Your task to perform on an android device: delete a single message in the gmail app Image 0: 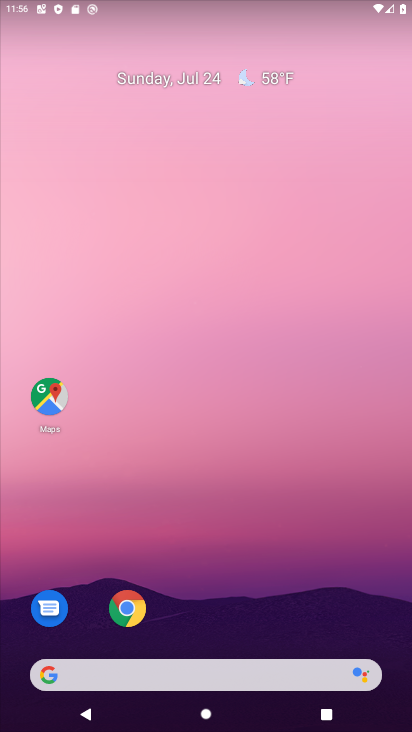
Step 0: drag from (232, 637) to (252, 136)
Your task to perform on an android device: delete a single message in the gmail app Image 1: 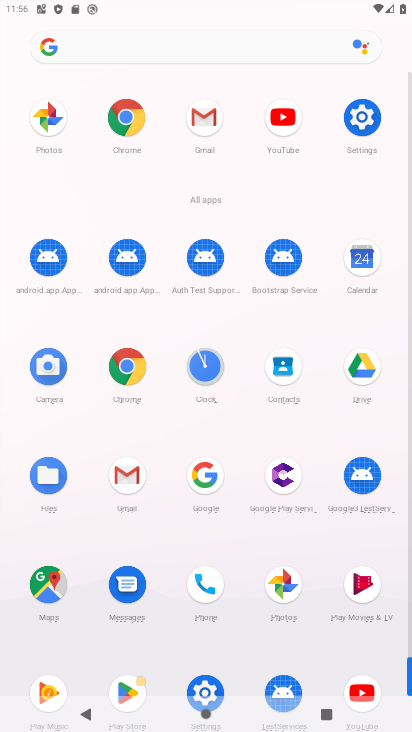
Step 1: click (132, 477)
Your task to perform on an android device: delete a single message in the gmail app Image 2: 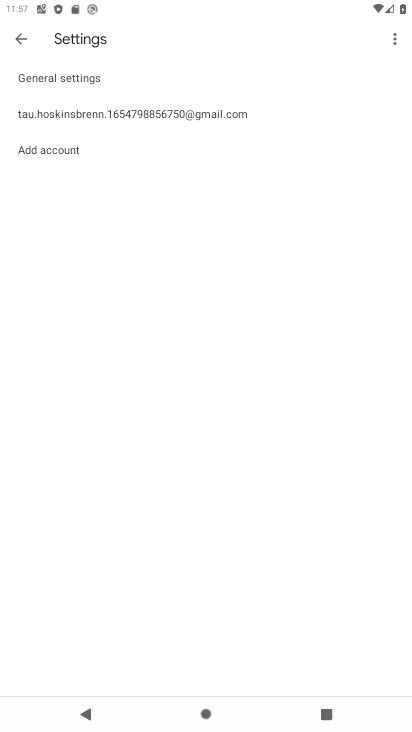
Step 2: click (20, 39)
Your task to perform on an android device: delete a single message in the gmail app Image 3: 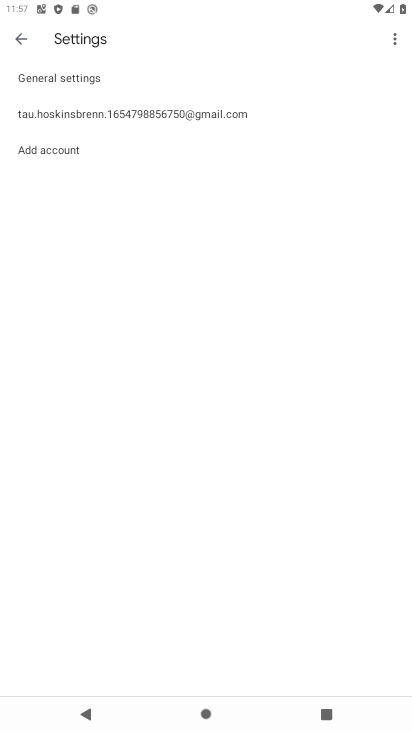
Step 3: click (19, 40)
Your task to perform on an android device: delete a single message in the gmail app Image 4: 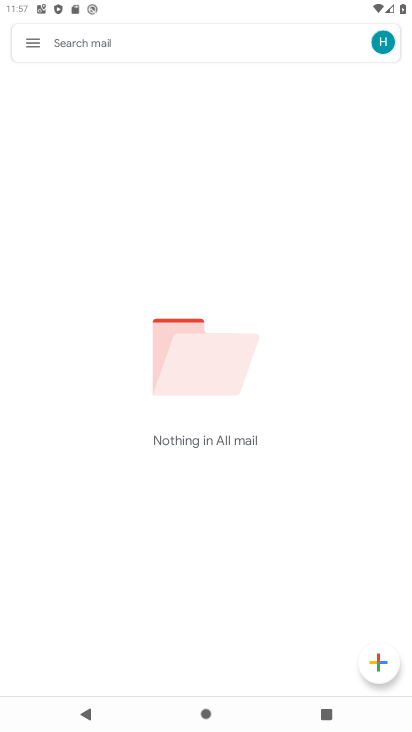
Step 4: click (29, 47)
Your task to perform on an android device: delete a single message in the gmail app Image 5: 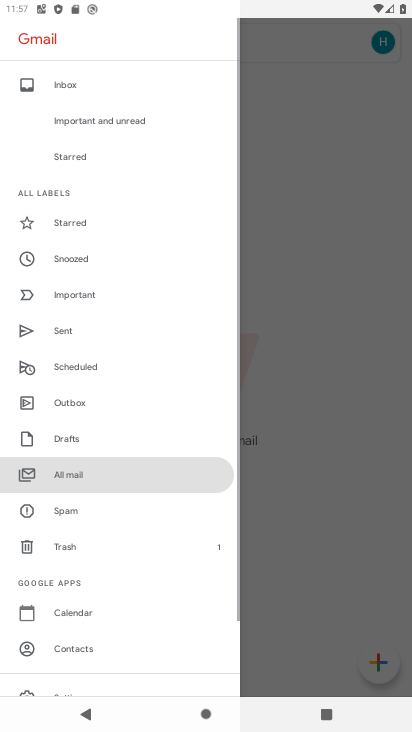
Step 5: click (29, 47)
Your task to perform on an android device: delete a single message in the gmail app Image 6: 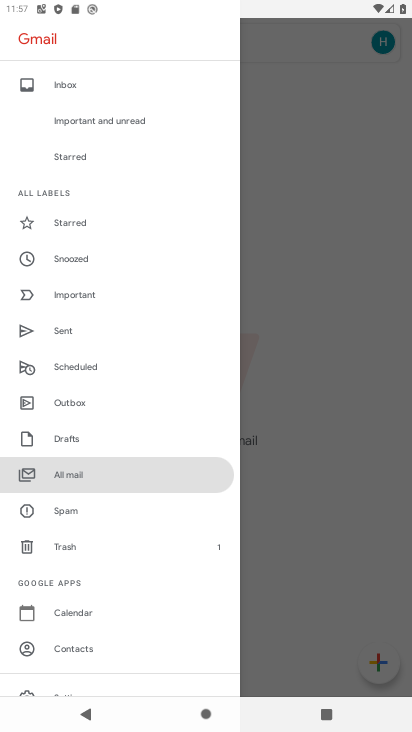
Step 6: click (106, 478)
Your task to perform on an android device: delete a single message in the gmail app Image 7: 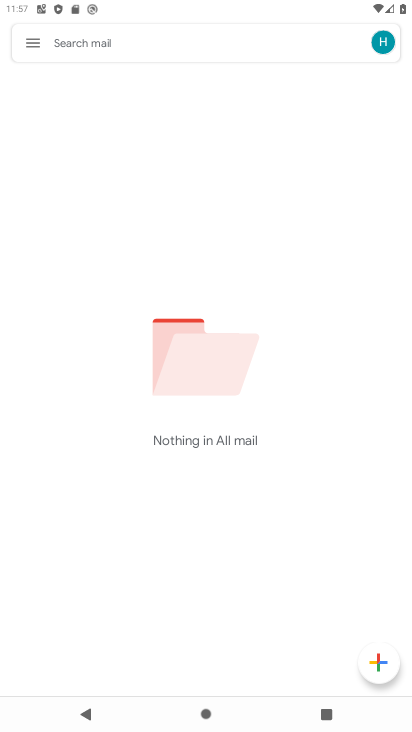
Step 7: task complete